Your task to perform on an android device: delete a single message in the gmail app Image 0: 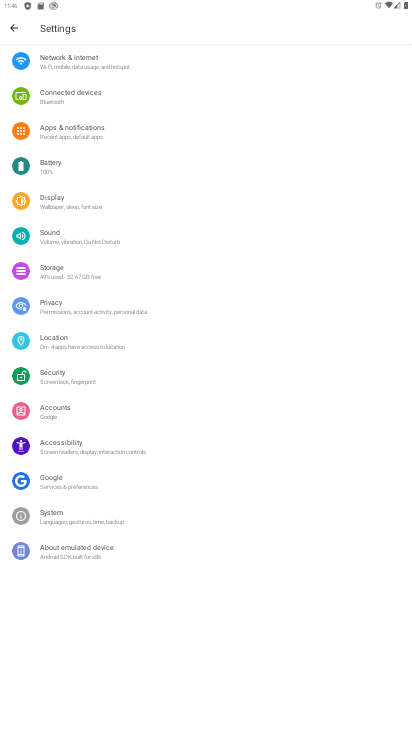
Step 0: press home button
Your task to perform on an android device: delete a single message in the gmail app Image 1: 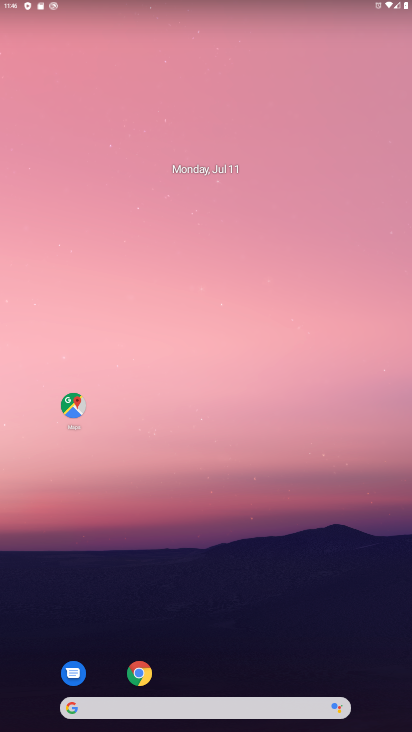
Step 1: drag from (210, 672) to (176, 12)
Your task to perform on an android device: delete a single message in the gmail app Image 2: 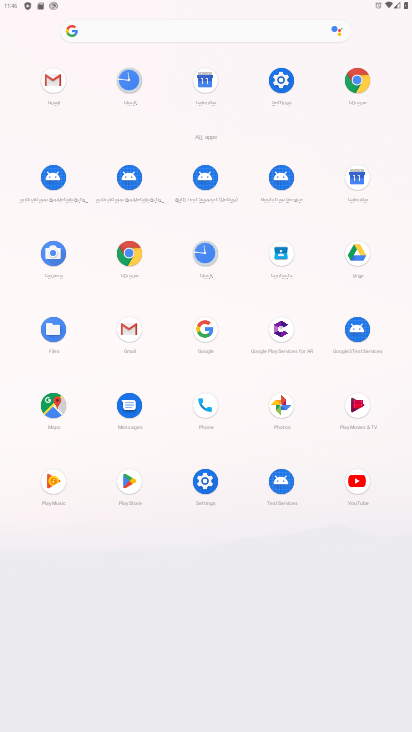
Step 2: click (128, 325)
Your task to perform on an android device: delete a single message in the gmail app Image 3: 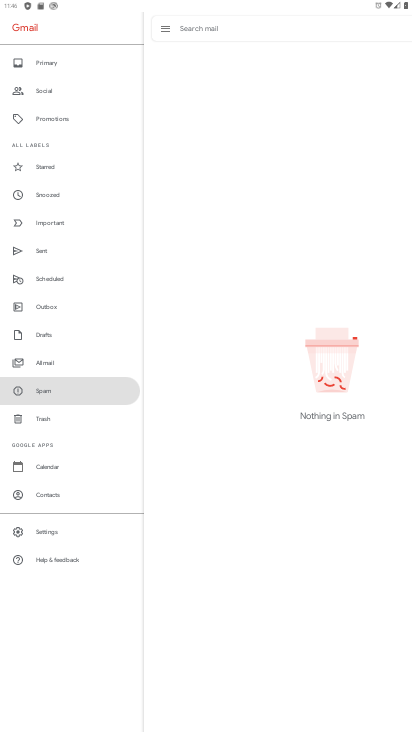
Step 3: task complete